Your task to perform on an android device: Open eBay Image 0: 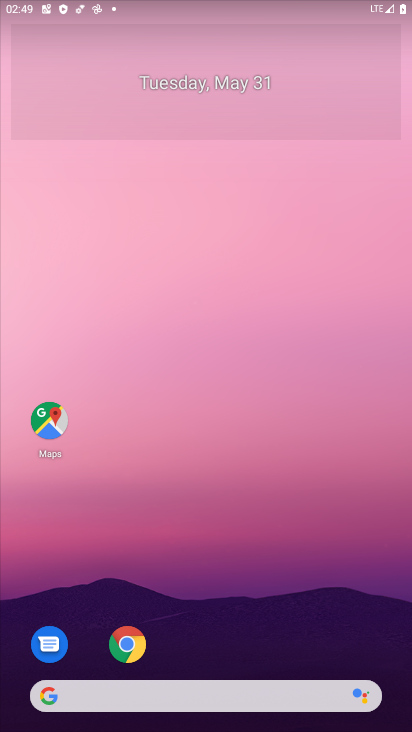
Step 0: click (126, 644)
Your task to perform on an android device: Open eBay Image 1: 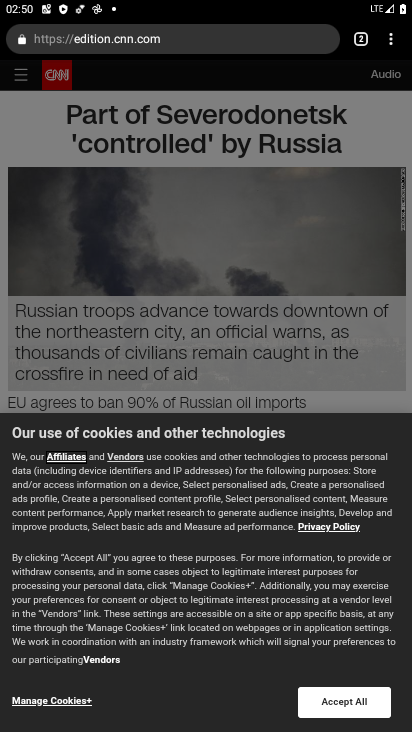
Step 1: click (222, 45)
Your task to perform on an android device: Open eBay Image 2: 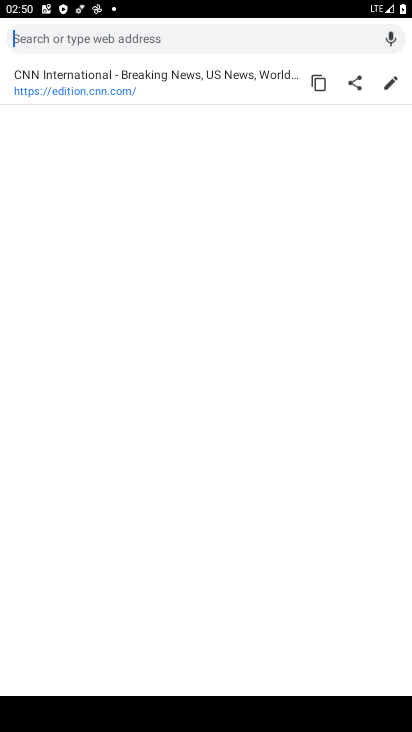
Step 2: type "ebay"
Your task to perform on an android device: Open eBay Image 3: 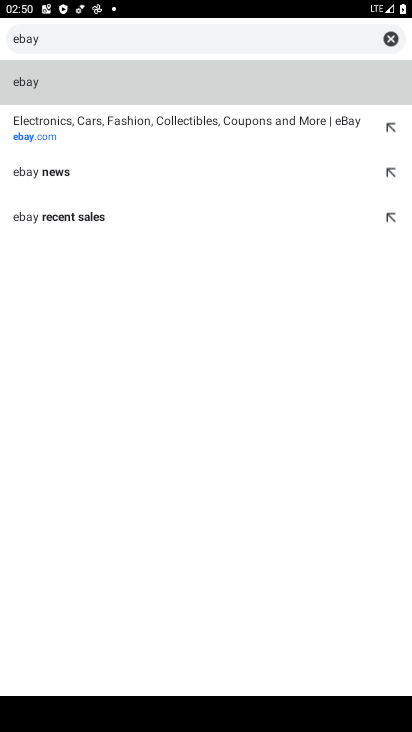
Step 3: click (48, 137)
Your task to perform on an android device: Open eBay Image 4: 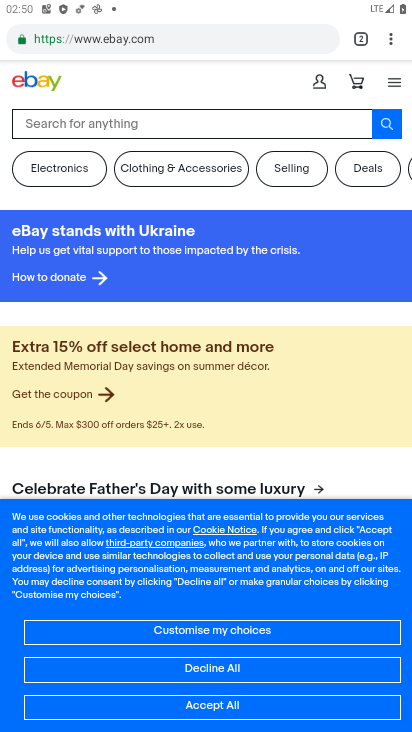
Step 4: task complete